Your task to perform on an android device: Is it going to rain tomorrow? Image 0: 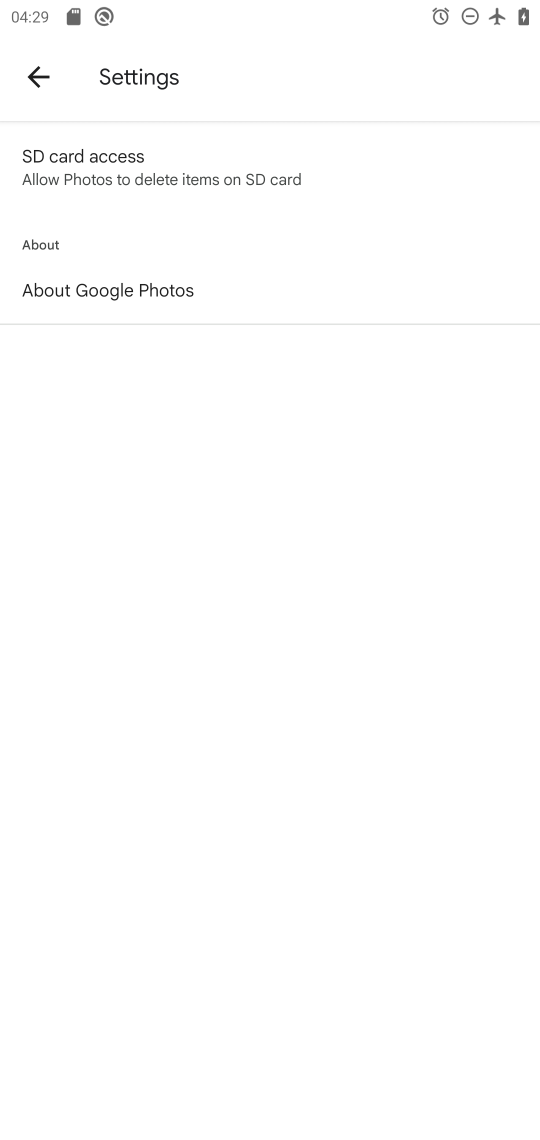
Step 0: press home button
Your task to perform on an android device: Is it going to rain tomorrow? Image 1: 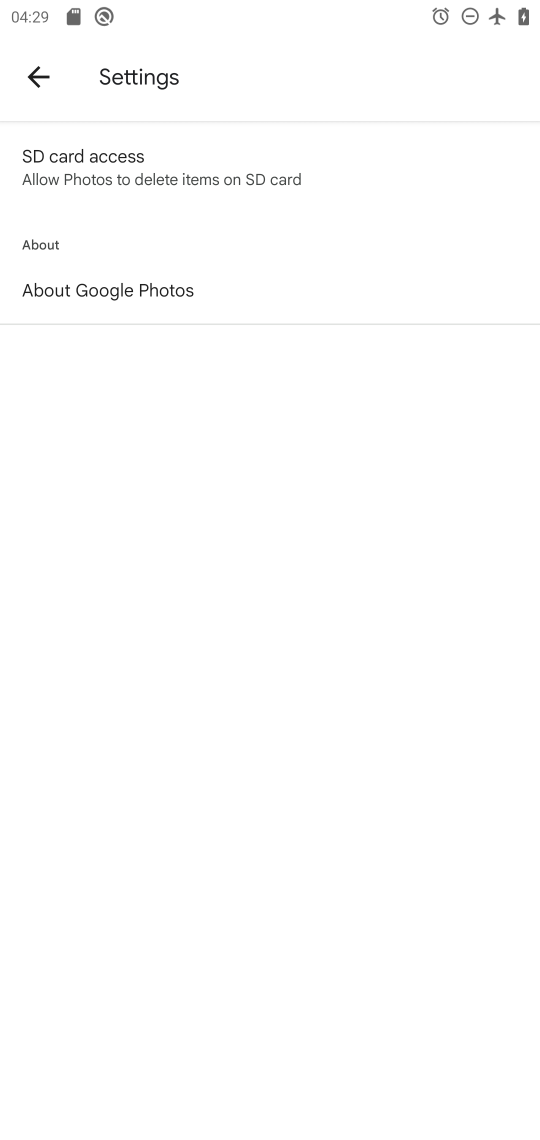
Step 1: press home button
Your task to perform on an android device: Is it going to rain tomorrow? Image 2: 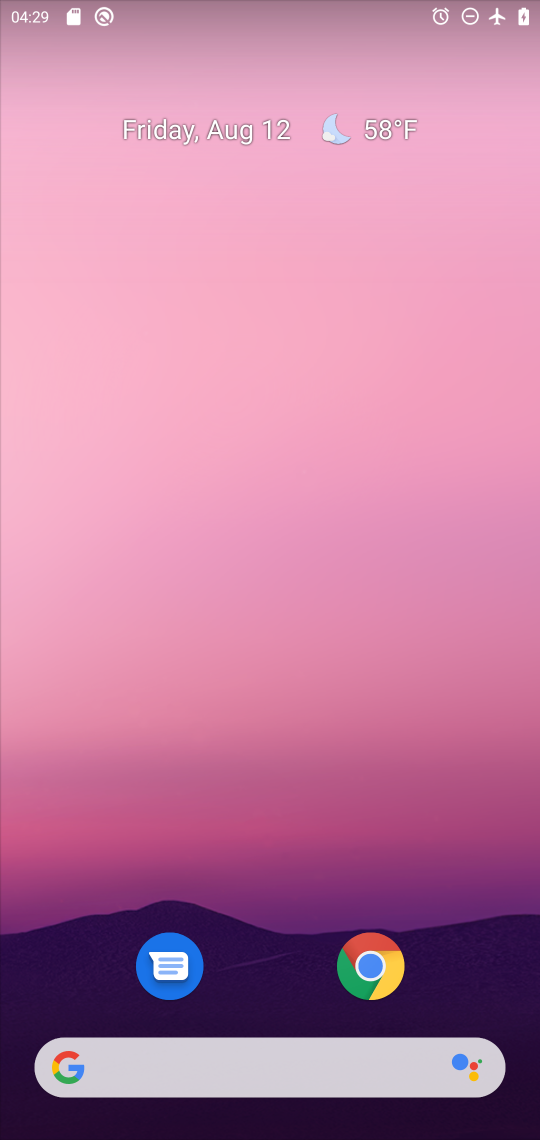
Step 2: click (385, 127)
Your task to perform on an android device: Is it going to rain tomorrow? Image 3: 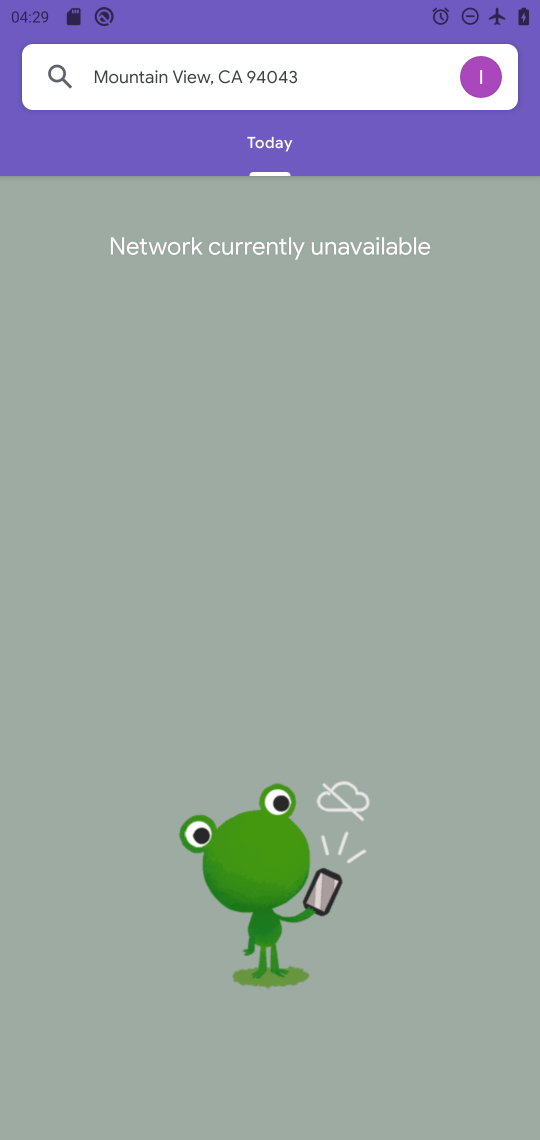
Step 3: task complete